Your task to perform on an android device: Open Google Chrome and open the bookmarks view Image 0: 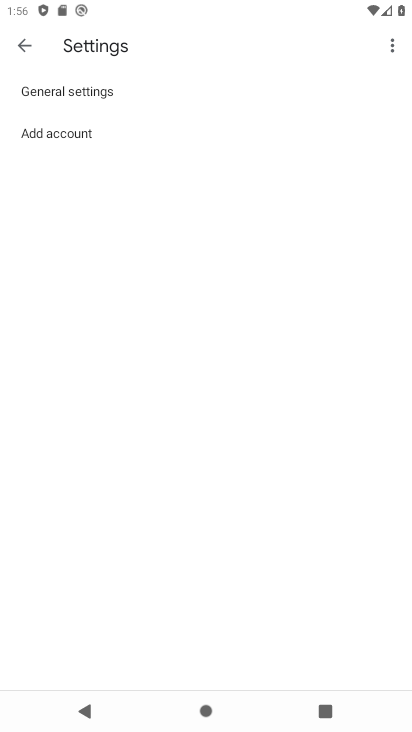
Step 0: press home button
Your task to perform on an android device: Open Google Chrome and open the bookmarks view Image 1: 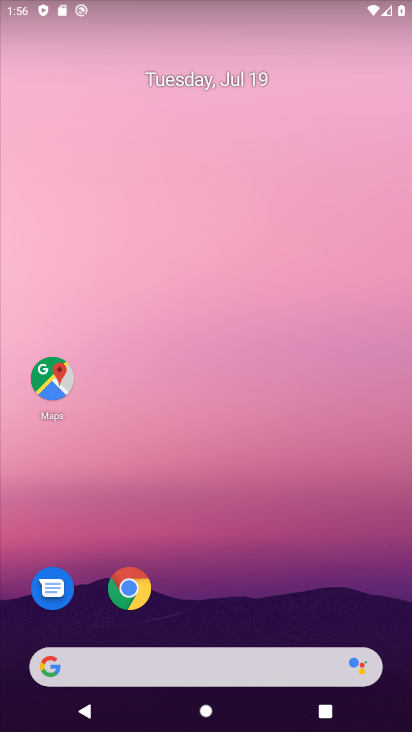
Step 1: click (133, 609)
Your task to perform on an android device: Open Google Chrome and open the bookmarks view Image 2: 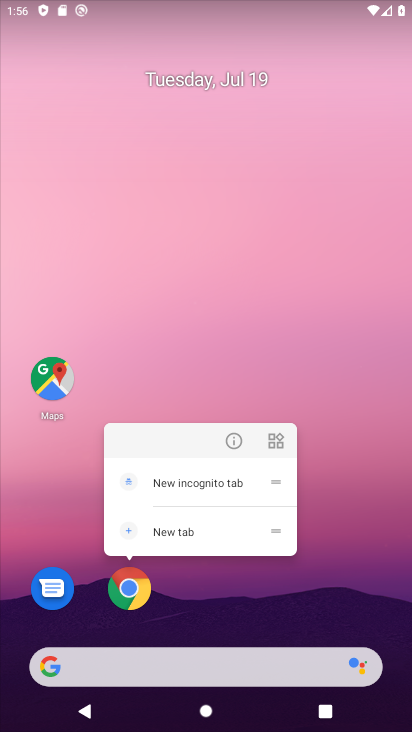
Step 2: click (133, 609)
Your task to perform on an android device: Open Google Chrome and open the bookmarks view Image 3: 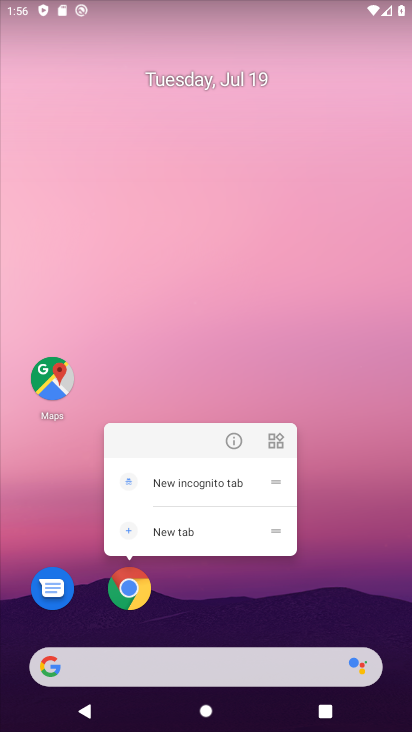
Step 3: click (133, 593)
Your task to perform on an android device: Open Google Chrome and open the bookmarks view Image 4: 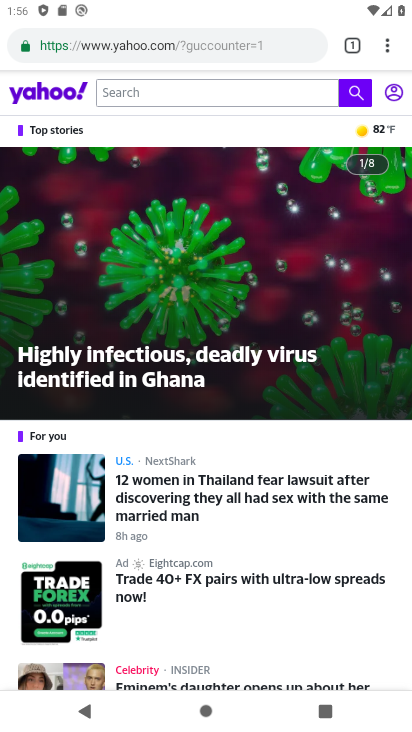
Step 4: task complete